Your task to perform on an android device: Open Android settings Image 0: 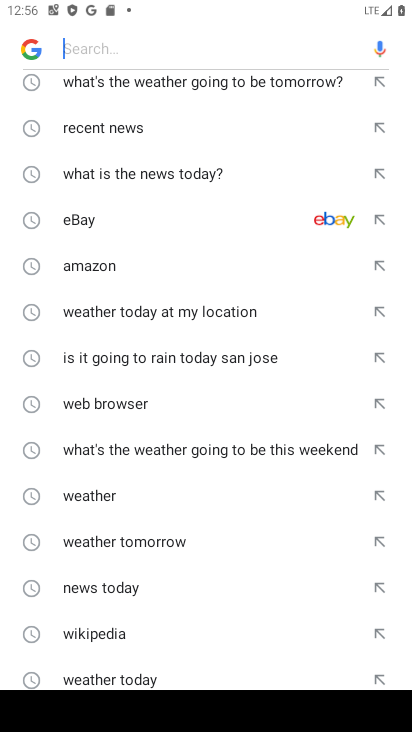
Step 0: press home button
Your task to perform on an android device: Open Android settings Image 1: 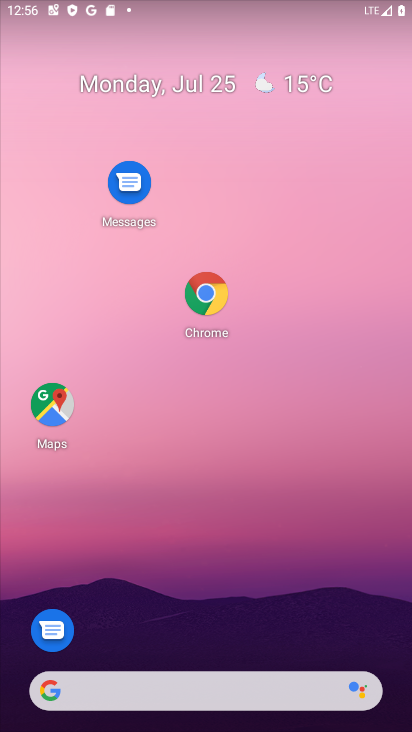
Step 1: drag from (257, 582) to (247, 180)
Your task to perform on an android device: Open Android settings Image 2: 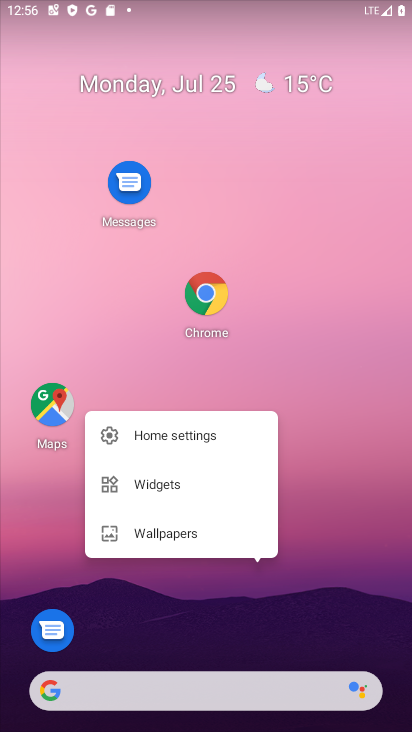
Step 2: drag from (318, 574) to (281, 103)
Your task to perform on an android device: Open Android settings Image 3: 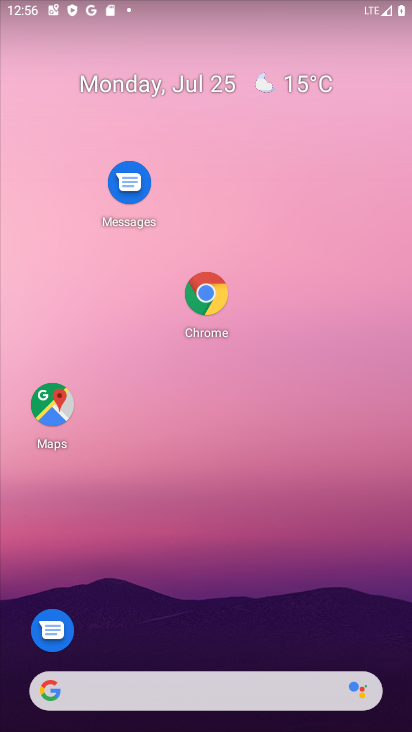
Step 3: drag from (302, 595) to (258, 57)
Your task to perform on an android device: Open Android settings Image 4: 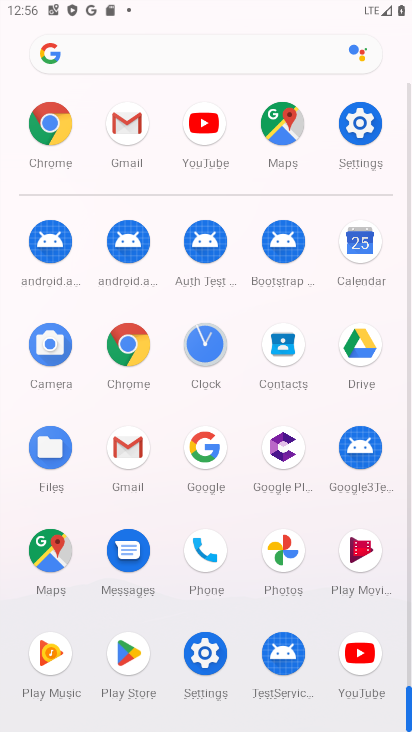
Step 4: click (203, 650)
Your task to perform on an android device: Open Android settings Image 5: 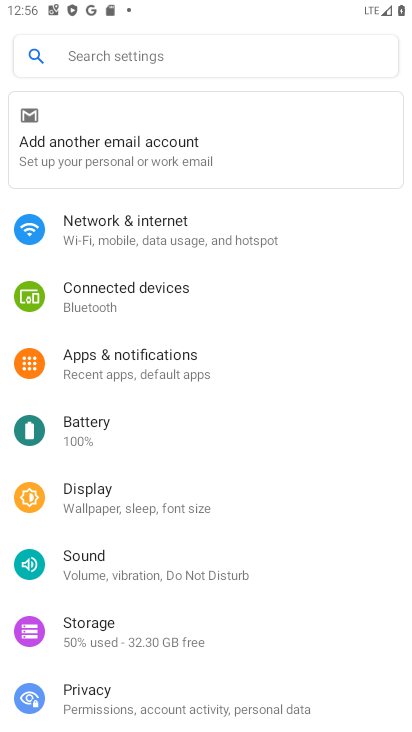
Step 5: drag from (254, 707) to (244, 168)
Your task to perform on an android device: Open Android settings Image 6: 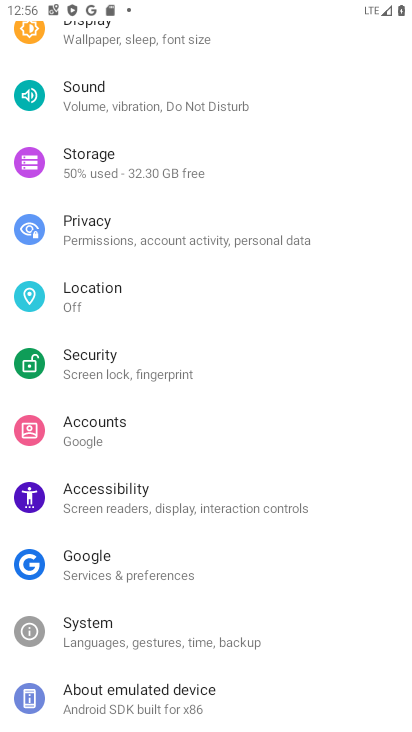
Step 6: click (183, 689)
Your task to perform on an android device: Open Android settings Image 7: 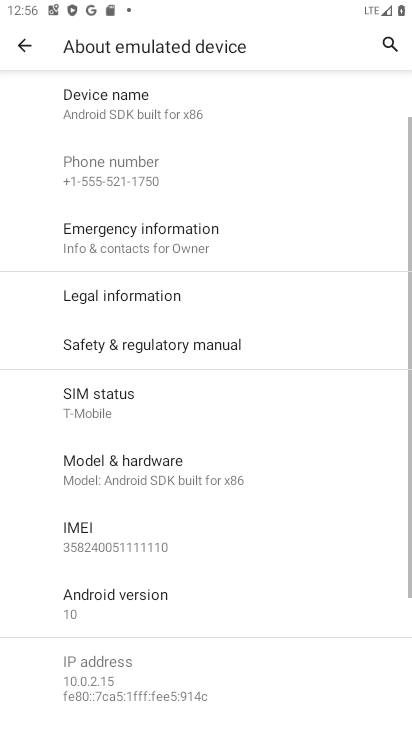
Step 7: drag from (264, 626) to (237, 160)
Your task to perform on an android device: Open Android settings Image 8: 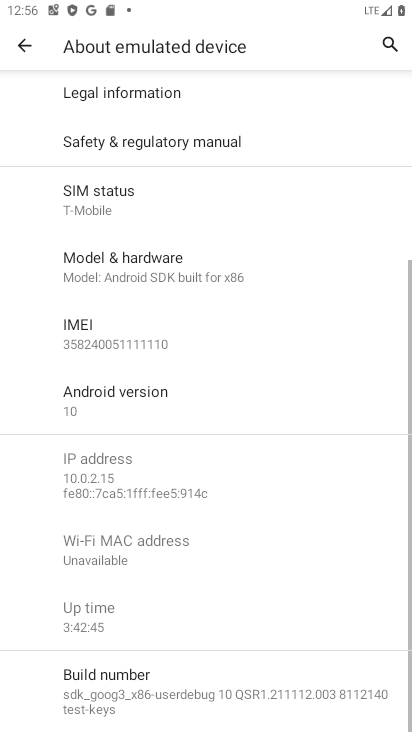
Step 8: click (103, 390)
Your task to perform on an android device: Open Android settings Image 9: 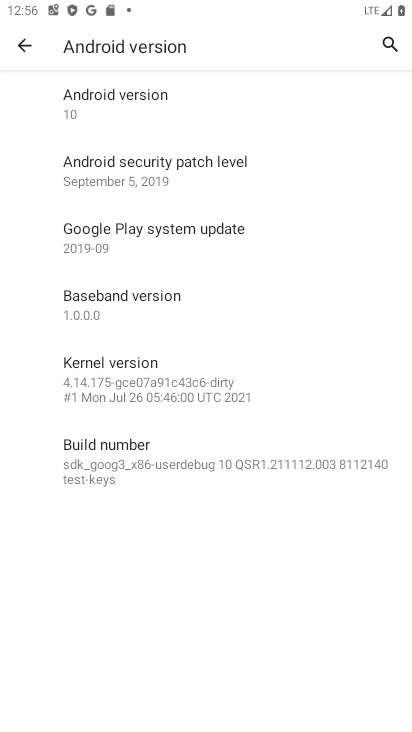
Step 9: task complete